Your task to perform on an android device: What's the weather going to be this weekend? Image 0: 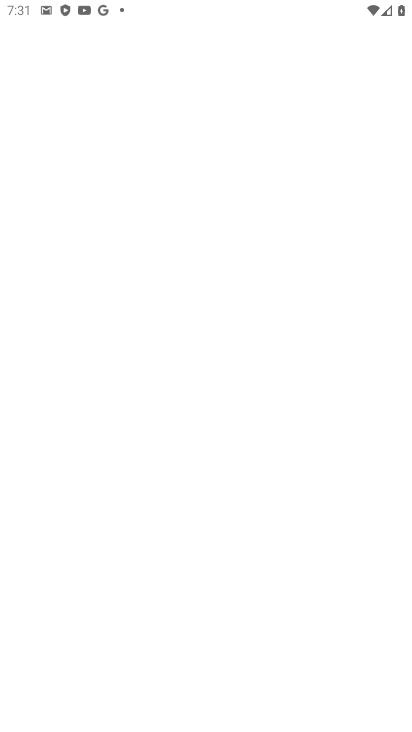
Step 0: press home button
Your task to perform on an android device: What's the weather going to be this weekend? Image 1: 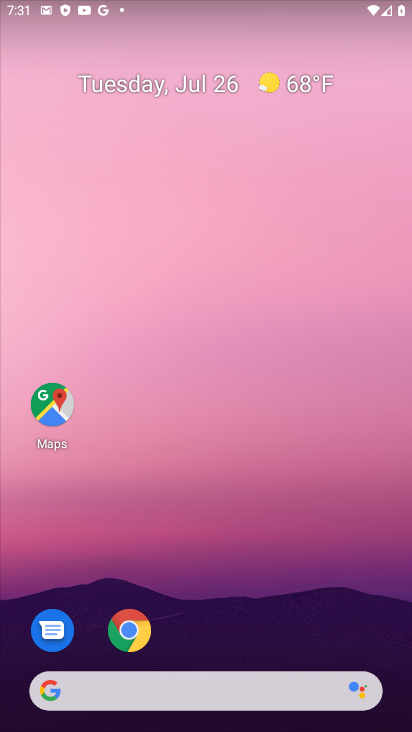
Step 1: click (261, 696)
Your task to perform on an android device: What's the weather going to be this weekend? Image 2: 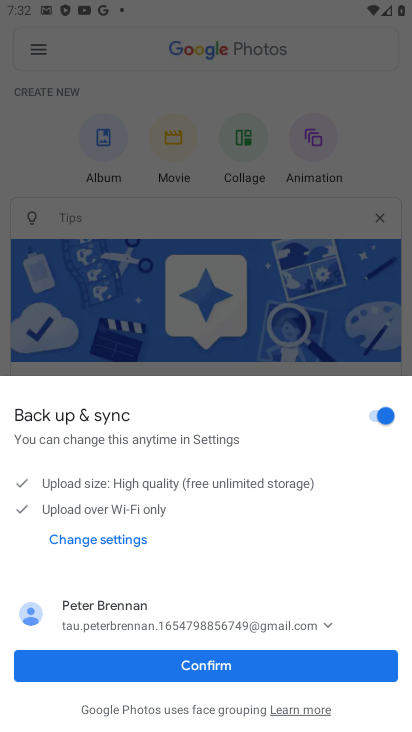
Step 2: click (350, 667)
Your task to perform on an android device: What's the weather going to be this weekend? Image 3: 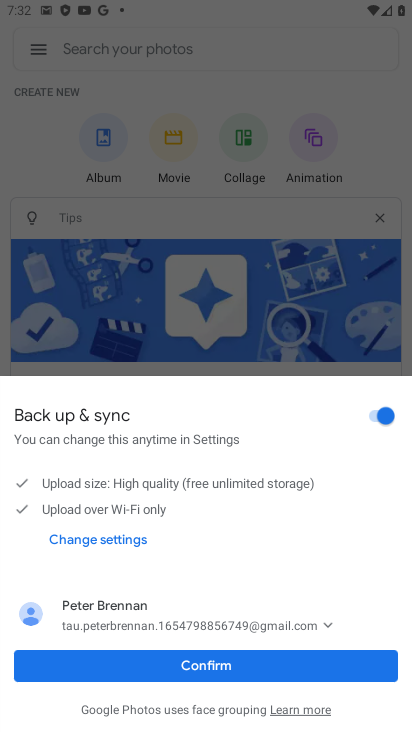
Step 3: press home button
Your task to perform on an android device: What's the weather going to be this weekend? Image 4: 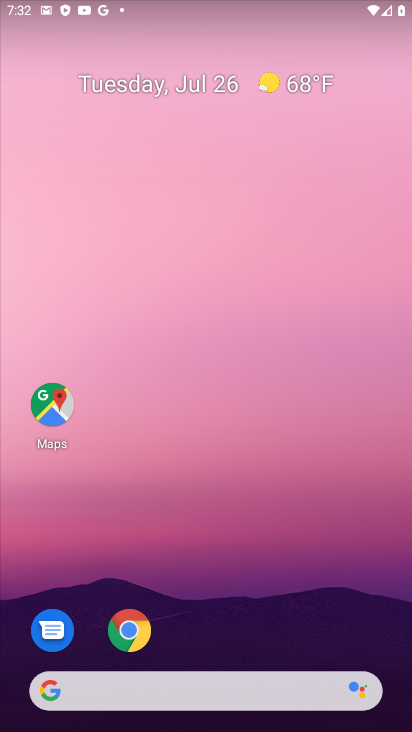
Step 4: click (241, 694)
Your task to perform on an android device: What's the weather going to be this weekend? Image 5: 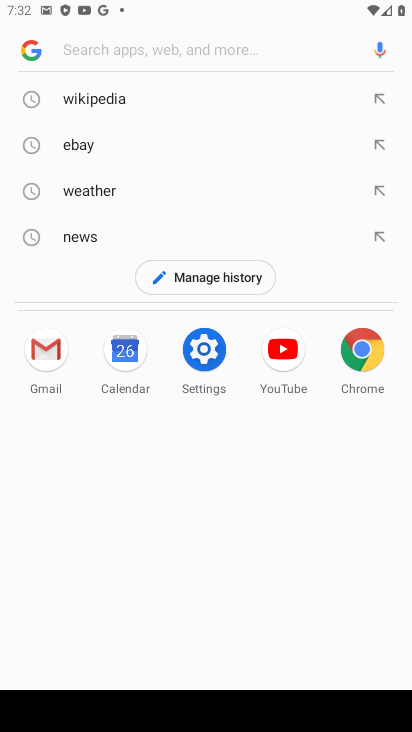
Step 5: type "weather"
Your task to perform on an android device: What's the weather going to be this weekend? Image 6: 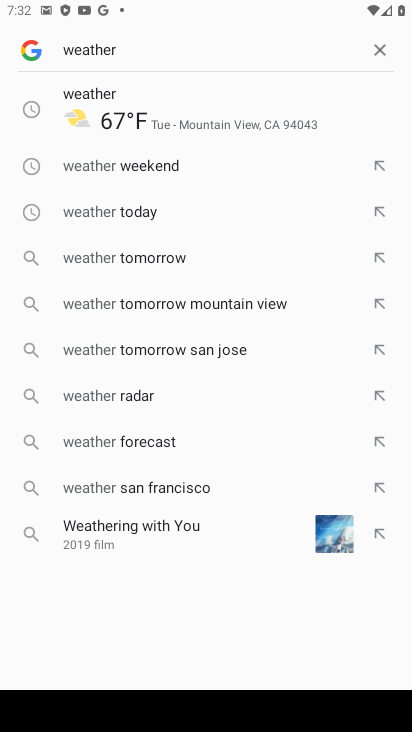
Step 6: click (293, 129)
Your task to perform on an android device: What's the weather going to be this weekend? Image 7: 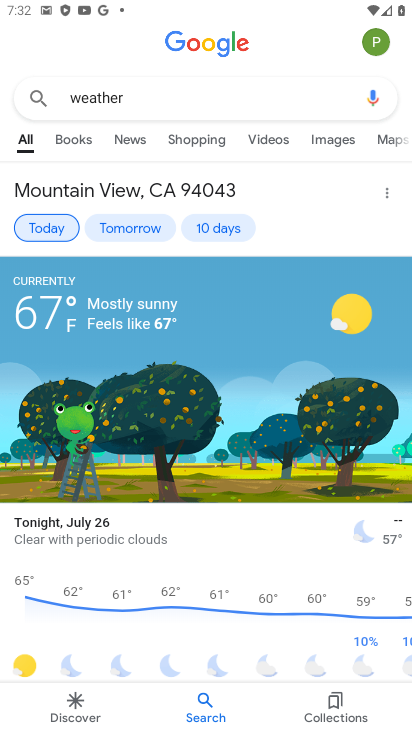
Step 7: click (211, 227)
Your task to perform on an android device: What's the weather going to be this weekend? Image 8: 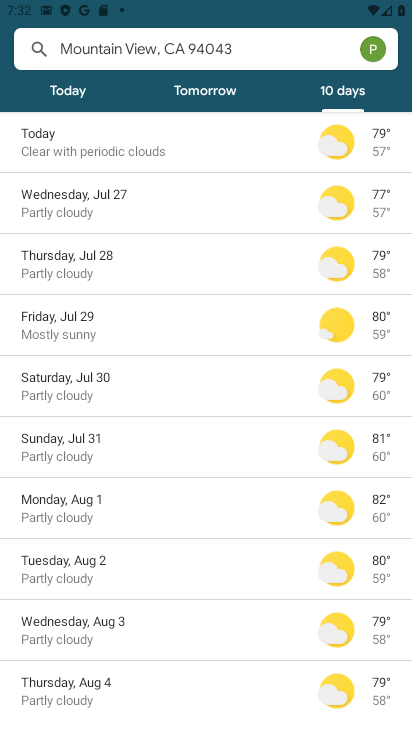
Step 8: click (199, 379)
Your task to perform on an android device: What's the weather going to be this weekend? Image 9: 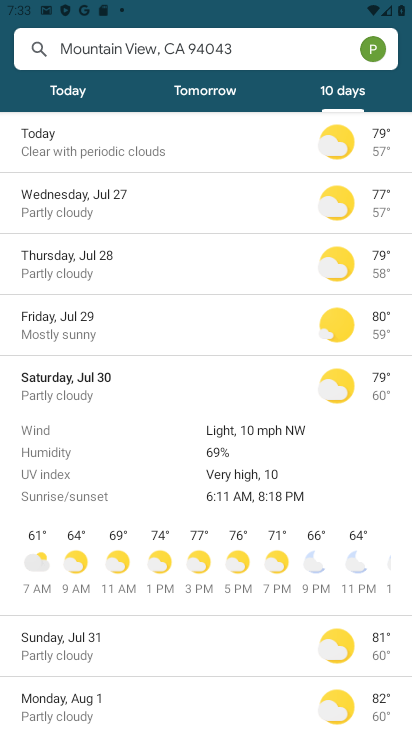
Step 9: task complete